Your task to perform on an android device: Open location settings Image 0: 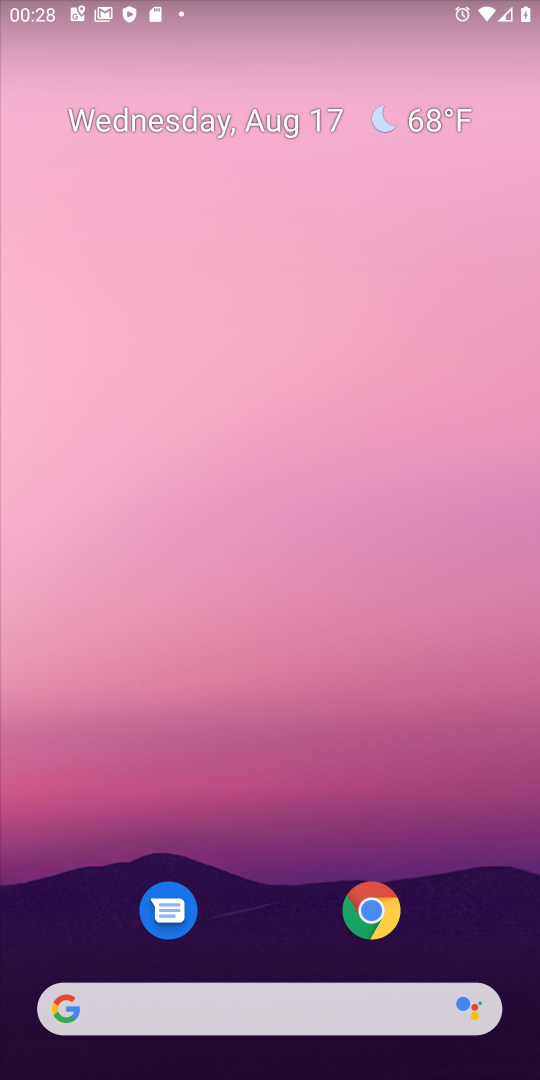
Step 0: drag from (301, 905) to (281, 11)
Your task to perform on an android device: Open location settings Image 1: 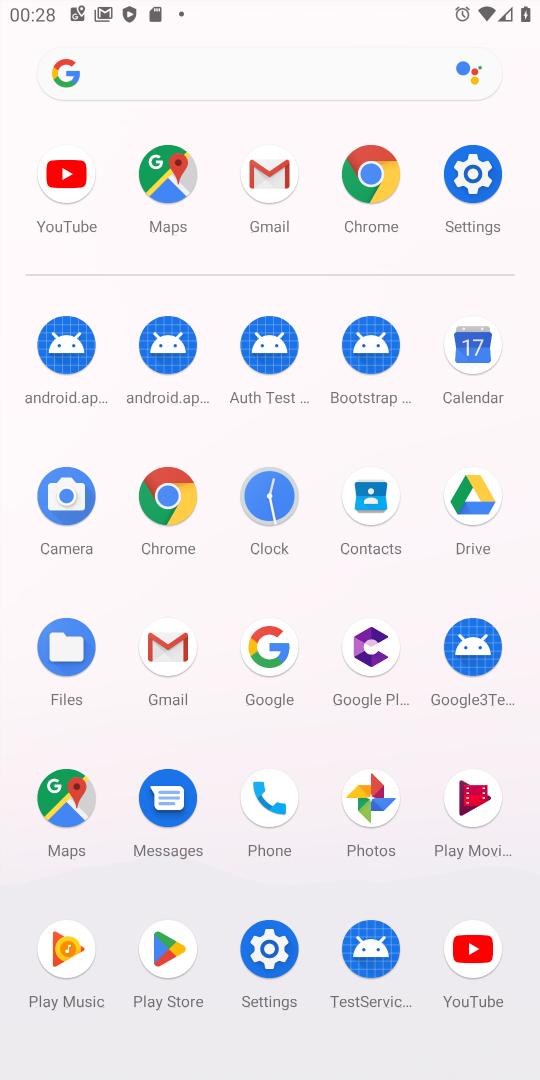
Step 1: click (268, 955)
Your task to perform on an android device: Open location settings Image 2: 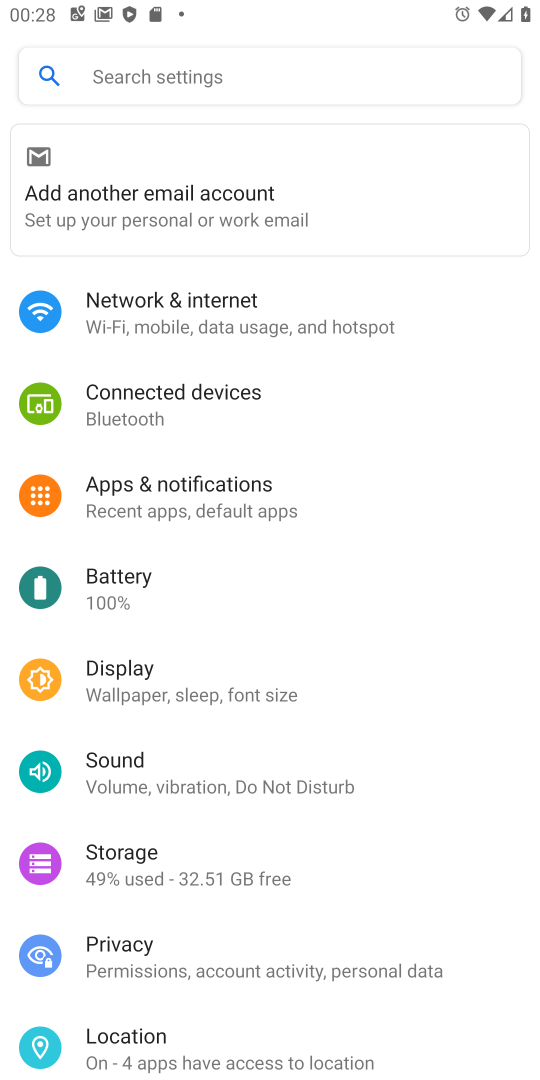
Step 2: drag from (239, 947) to (284, 378)
Your task to perform on an android device: Open location settings Image 3: 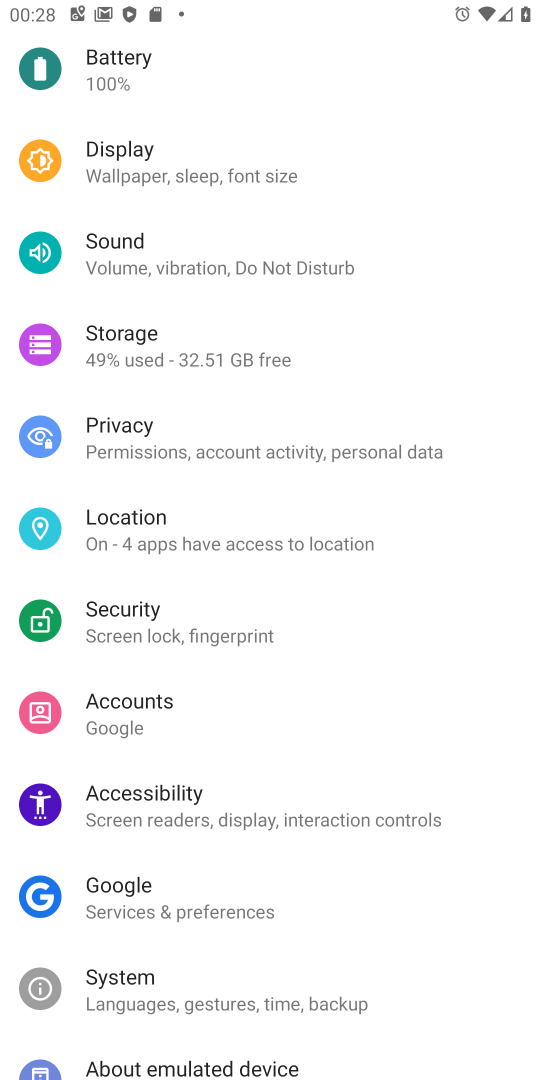
Step 3: click (158, 540)
Your task to perform on an android device: Open location settings Image 4: 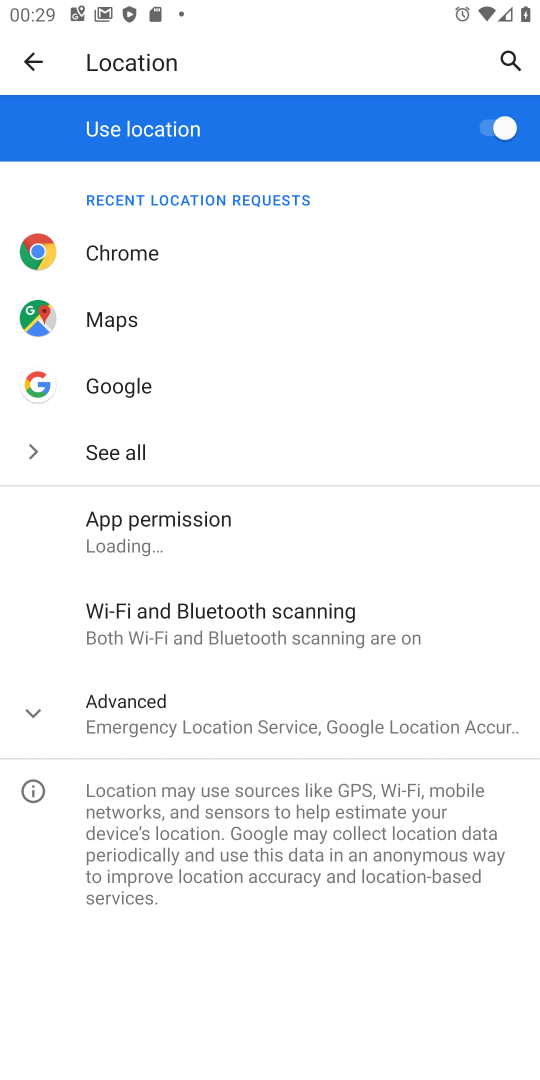
Step 4: task complete